Your task to perform on an android device: Check the news Image 0: 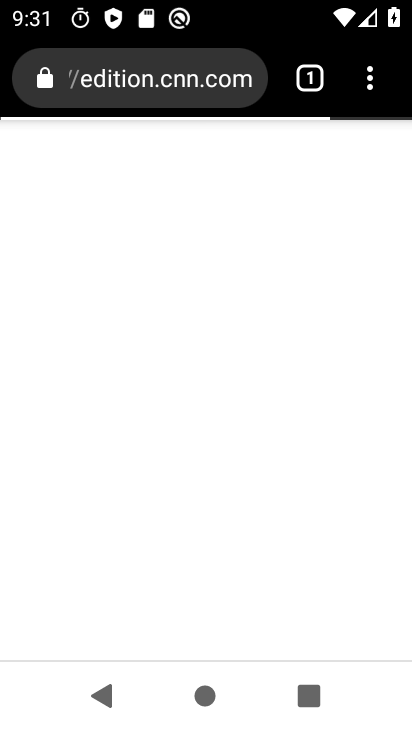
Step 0: press home button
Your task to perform on an android device: Check the news Image 1: 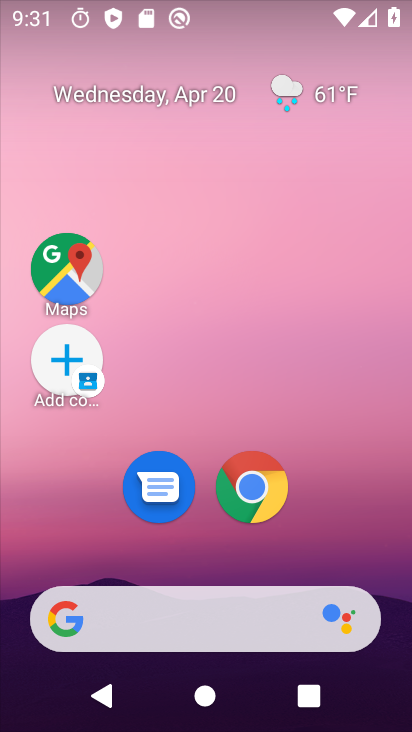
Step 1: drag from (311, 570) to (223, 199)
Your task to perform on an android device: Check the news Image 2: 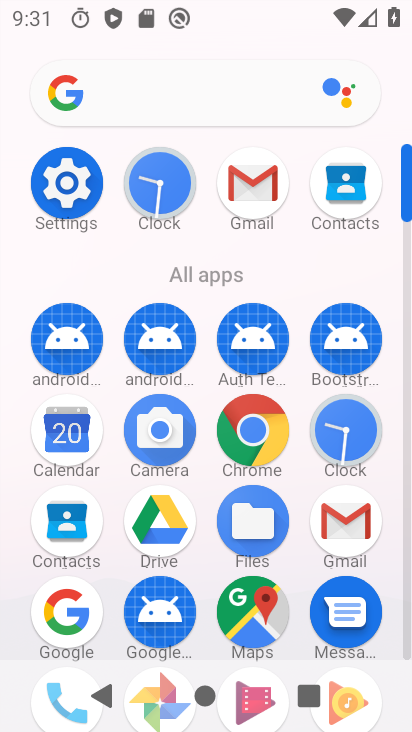
Step 2: click (174, 107)
Your task to perform on an android device: Check the news Image 3: 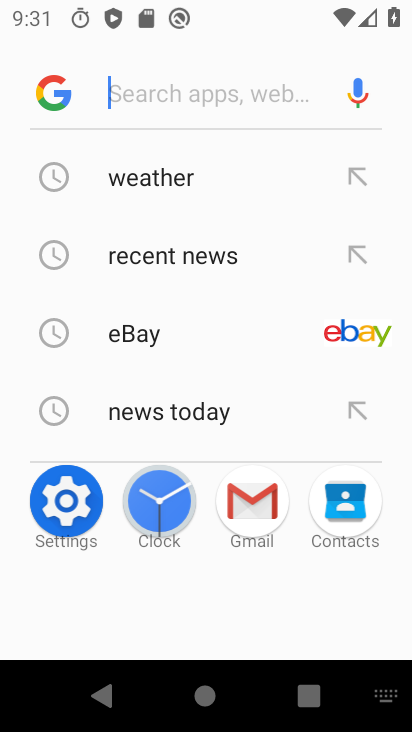
Step 3: type "news"
Your task to perform on an android device: Check the news Image 4: 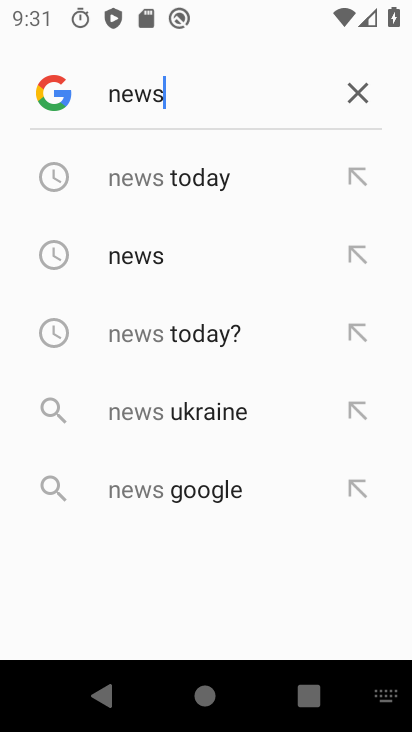
Step 4: click (192, 255)
Your task to perform on an android device: Check the news Image 5: 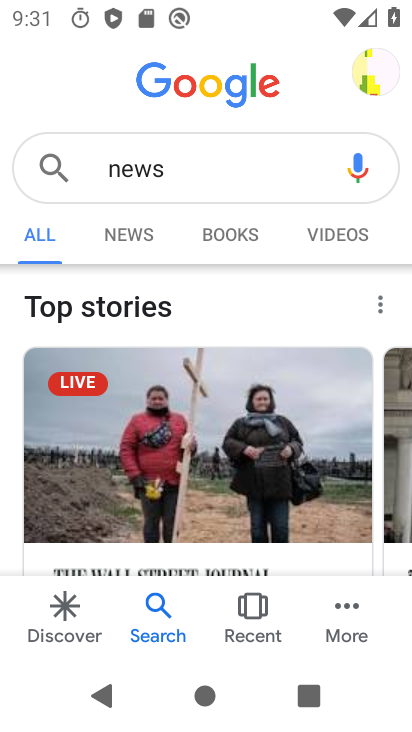
Step 5: click (124, 224)
Your task to perform on an android device: Check the news Image 6: 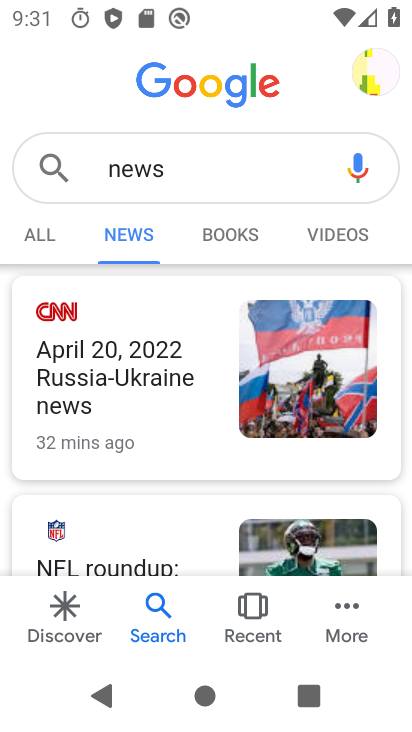
Step 6: task complete